Your task to perform on an android device: toggle airplane mode Image 0: 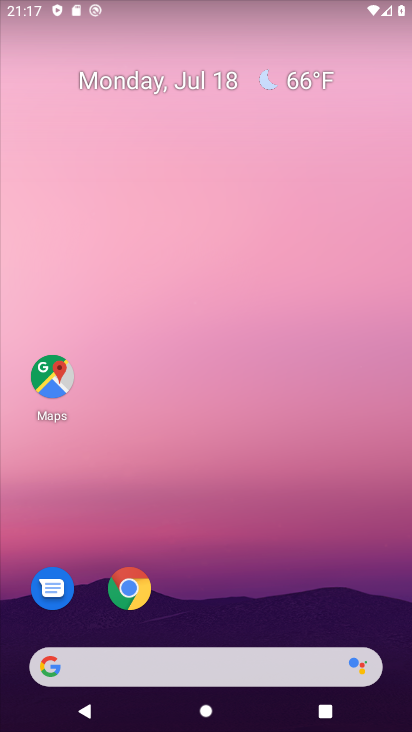
Step 0: drag from (391, 0) to (284, 586)
Your task to perform on an android device: toggle airplane mode Image 1: 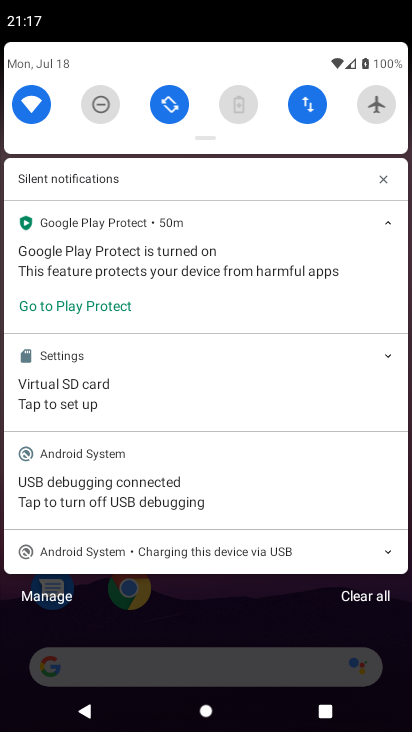
Step 1: click (367, 105)
Your task to perform on an android device: toggle airplane mode Image 2: 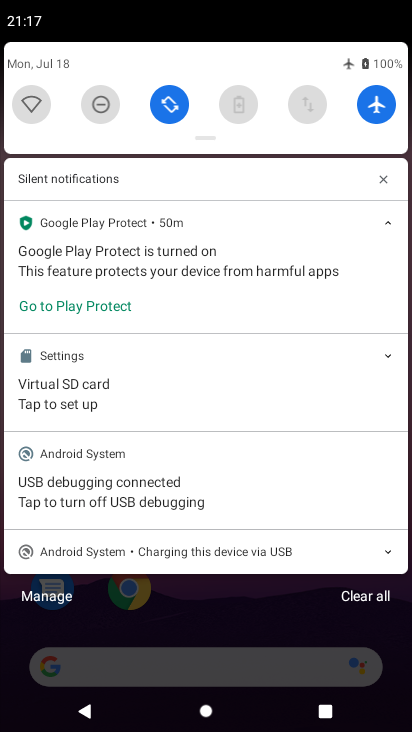
Step 2: task complete